Your task to perform on an android device: turn off smart reply in the gmail app Image 0: 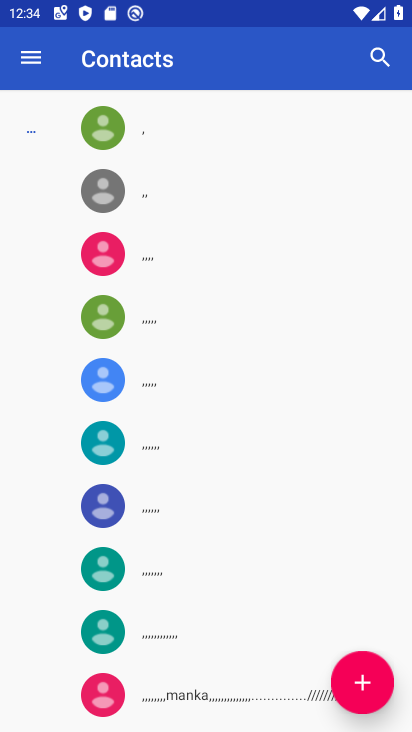
Step 0: press home button
Your task to perform on an android device: turn off smart reply in the gmail app Image 1: 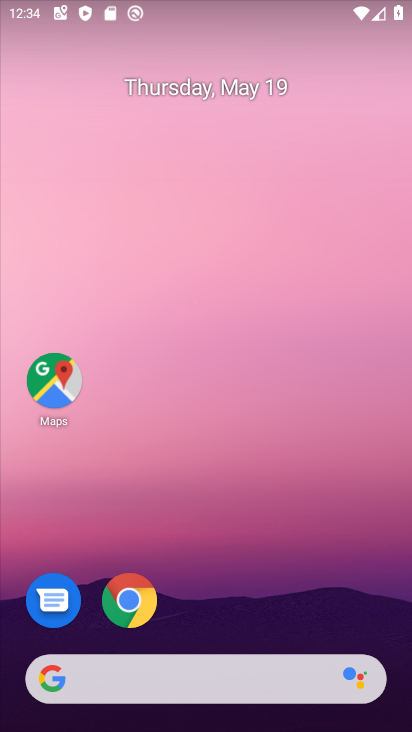
Step 1: drag from (275, 645) to (217, 28)
Your task to perform on an android device: turn off smart reply in the gmail app Image 2: 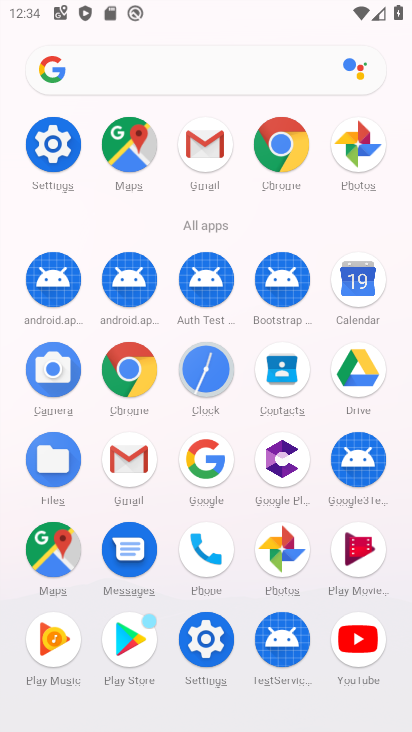
Step 2: click (130, 461)
Your task to perform on an android device: turn off smart reply in the gmail app Image 3: 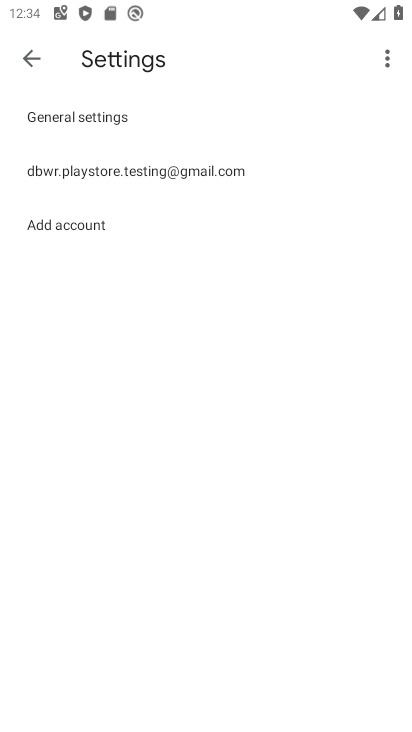
Step 3: click (132, 184)
Your task to perform on an android device: turn off smart reply in the gmail app Image 4: 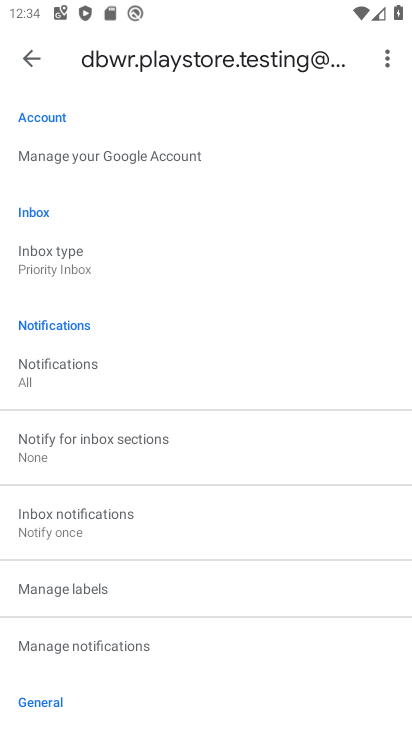
Step 4: drag from (203, 649) to (165, 201)
Your task to perform on an android device: turn off smart reply in the gmail app Image 5: 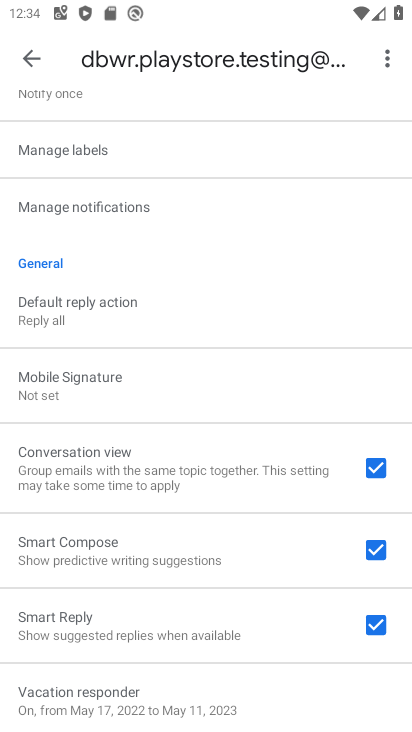
Step 5: click (384, 626)
Your task to perform on an android device: turn off smart reply in the gmail app Image 6: 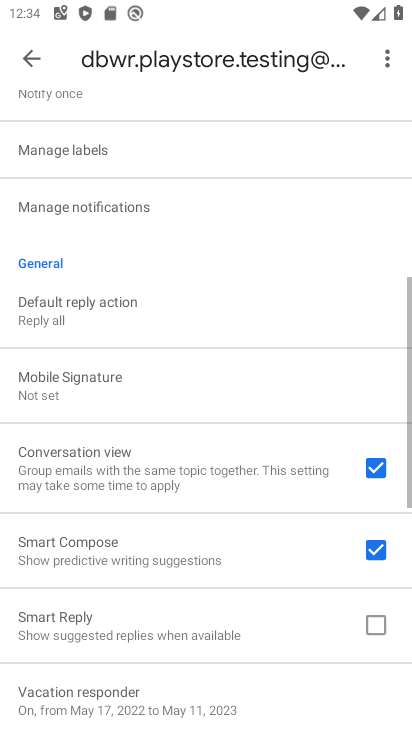
Step 6: task complete